Your task to perform on an android device: turn pop-ups on in chrome Image 0: 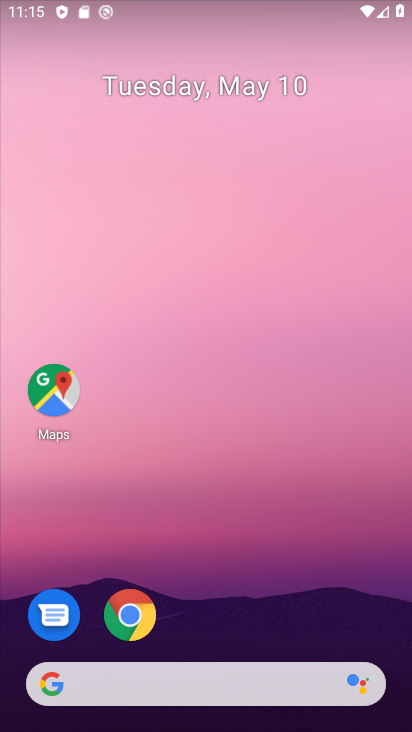
Step 0: drag from (221, 554) to (247, 6)
Your task to perform on an android device: turn pop-ups on in chrome Image 1: 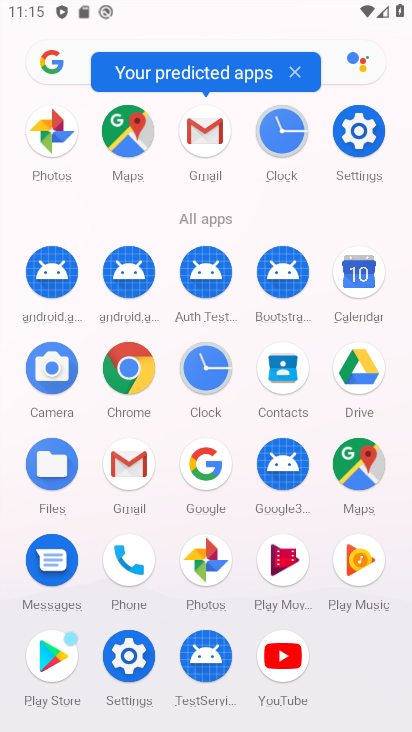
Step 1: click (127, 364)
Your task to perform on an android device: turn pop-ups on in chrome Image 2: 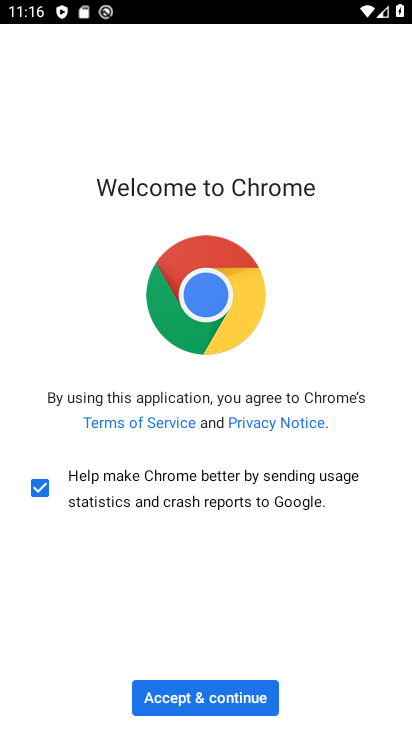
Step 2: click (212, 692)
Your task to perform on an android device: turn pop-ups on in chrome Image 3: 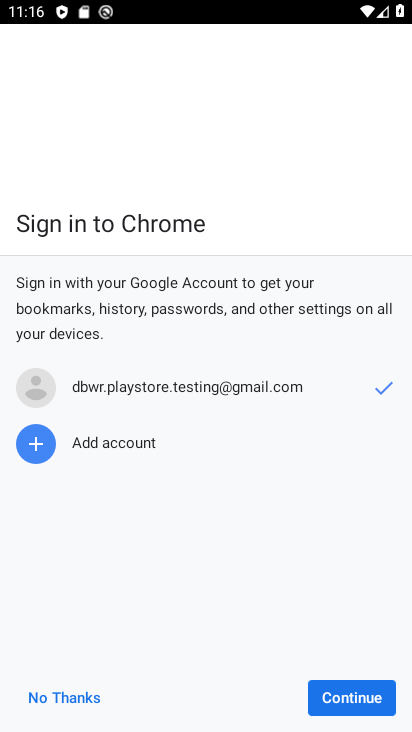
Step 3: click (341, 692)
Your task to perform on an android device: turn pop-ups on in chrome Image 4: 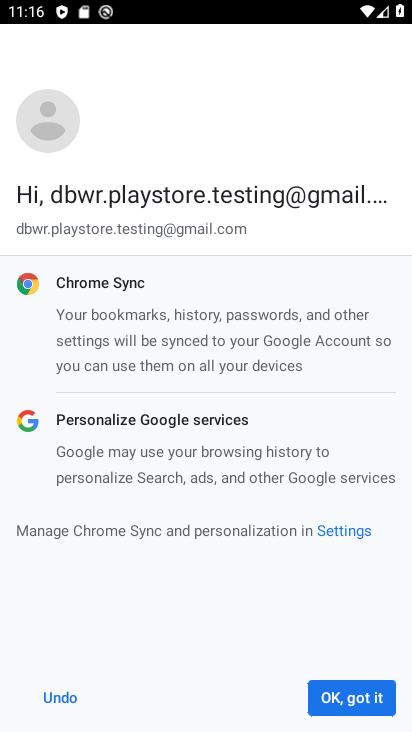
Step 4: click (341, 692)
Your task to perform on an android device: turn pop-ups on in chrome Image 5: 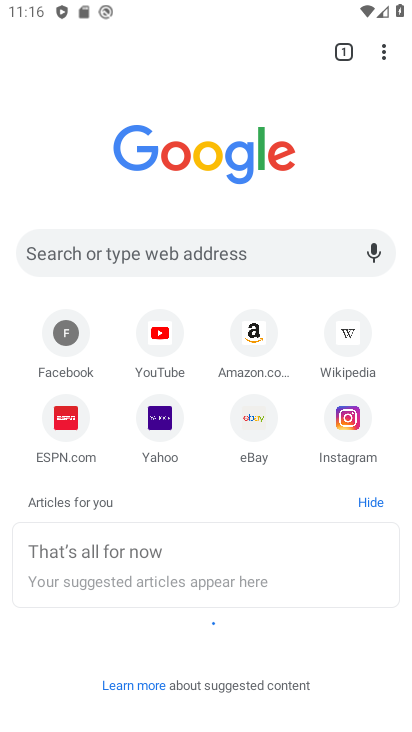
Step 5: drag from (381, 53) to (196, 429)
Your task to perform on an android device: turn pop-ups on in chrome Image 6: 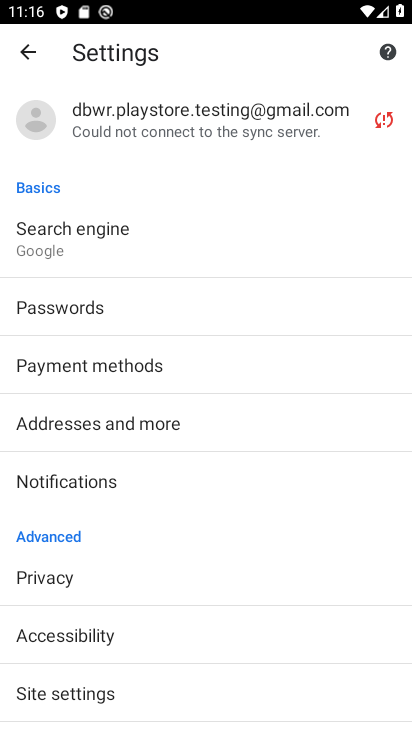
Step 6: drag from (171, 519) to (225, 216)
Your task to perform on an android device: turn pop-ups on in chrome Image 7: 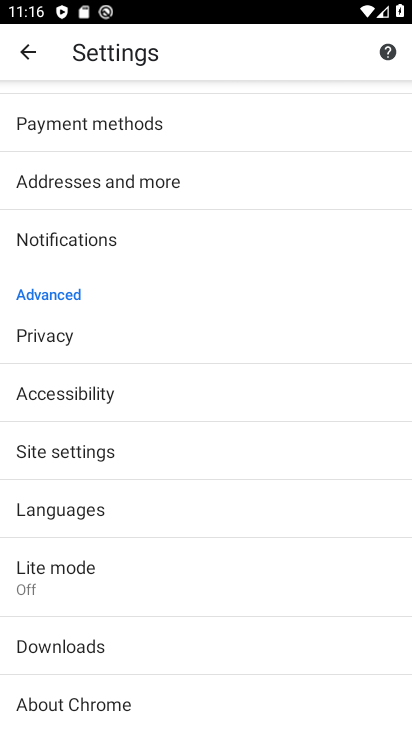
Step 7: drag from (235, 584) to (259, 215)
Your task to perform on an android device: turn pop-ups on in chrome Image 8: 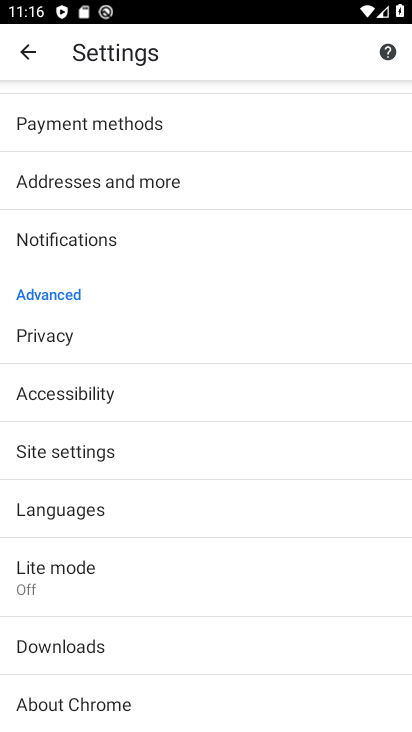
Step 8: drag from (269, 543) to (269, 174)
Your task to perform on an android device: turn pop-ups on in chrome Image 9: 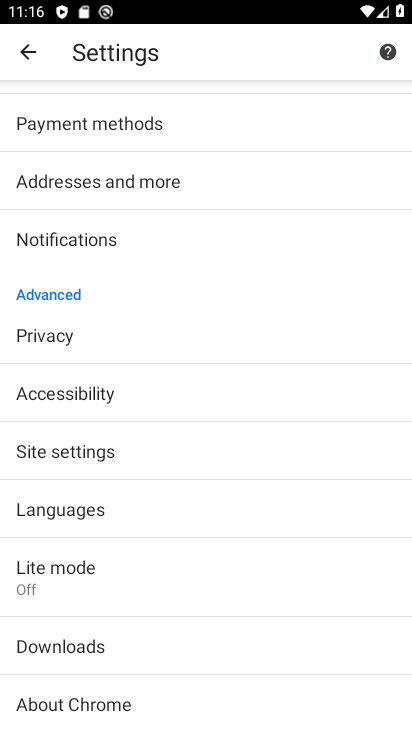
Step 9: click (111, 451)
Your task to perform on an android device: turn pop-ups on in chrome Image 10: 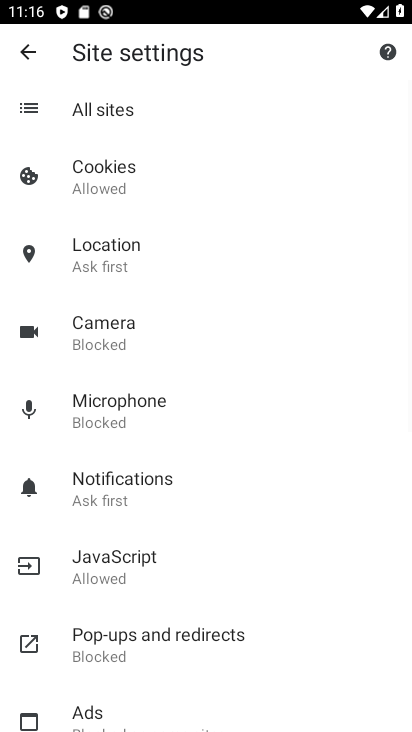
Step 10: drag from (245, 545) to (255, 227)
Your task to perform on an android device: turn pop-ups on in chrome Image 11: 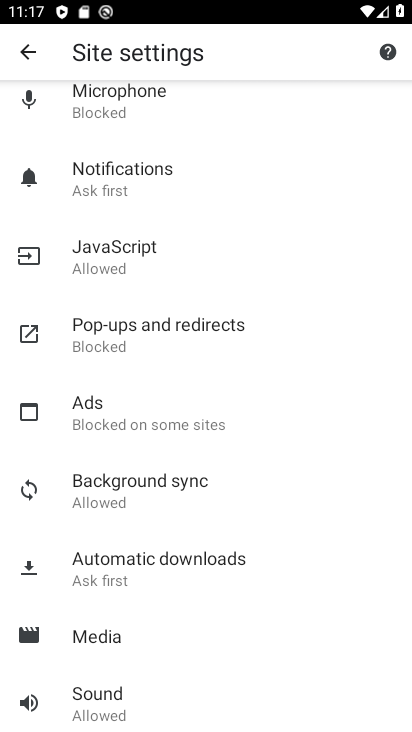
Step 11: click (186, 332)
Your task to perform on an android device: turn pop-ups on in chrome Image 12: 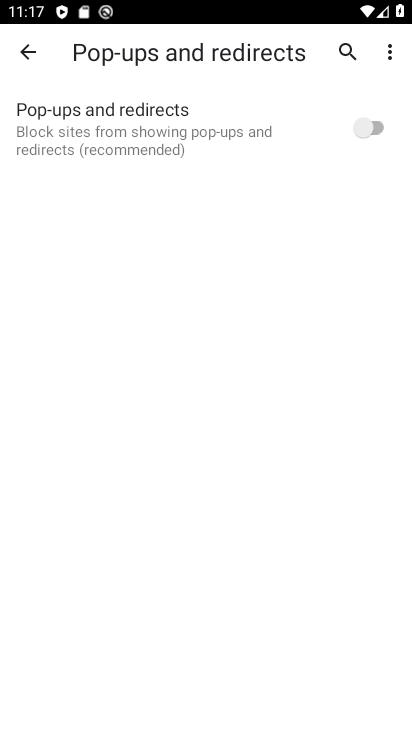
Step 12: click (386, 114)
Your task to perform on an android device: turn pop-ups on in chrome Image 13: 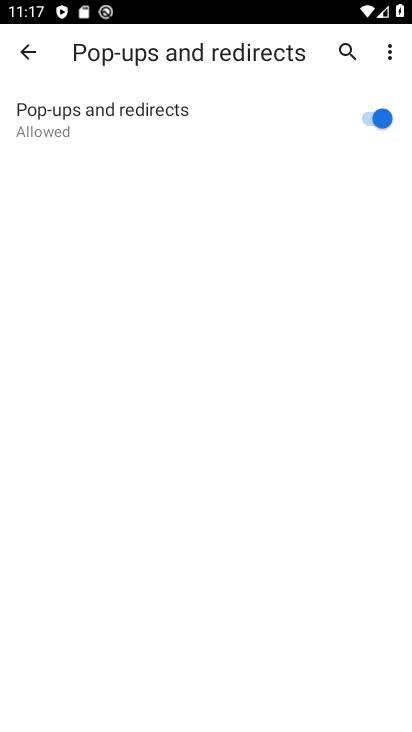
Step 13: task complete